Your task to perform on an android device: choose inbox layout in the gmail app Image 0: 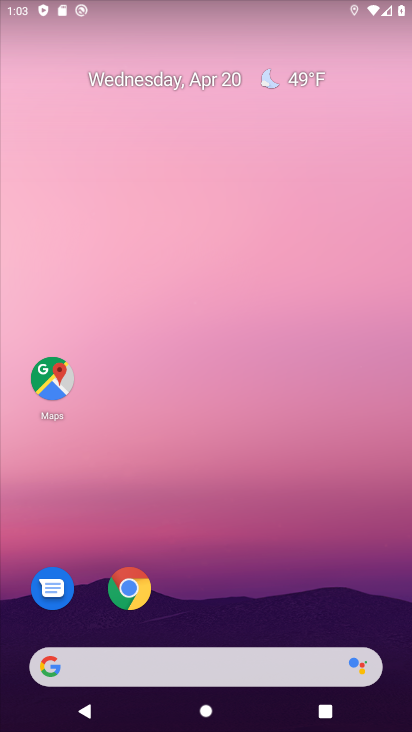
Step 0: drag from (207, 664) to (408, 8)
Your task to perform on an android device: choose inbox layout in the gmail app Image 1: 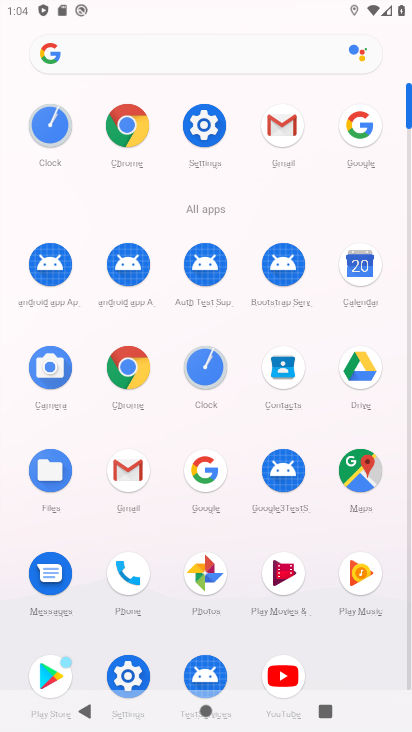
Step 1: click (277, 141)
Your task to perform on an android device: choose inbox layout in the gmail app Image 2: 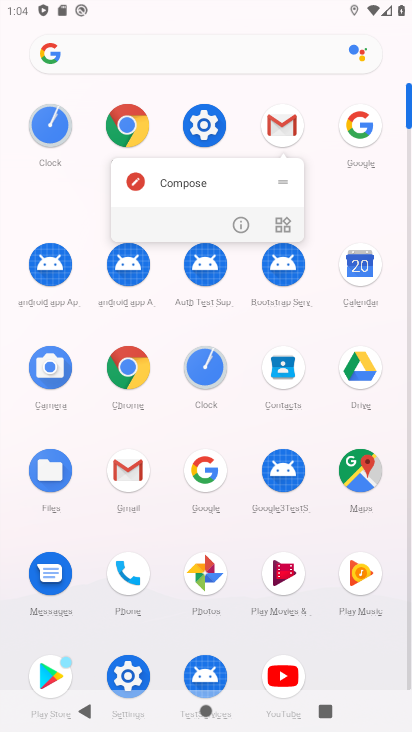
Step 2: click (282, 123)
Your task to perform on an android device: choose inbox layout in the gmail app Image 3: 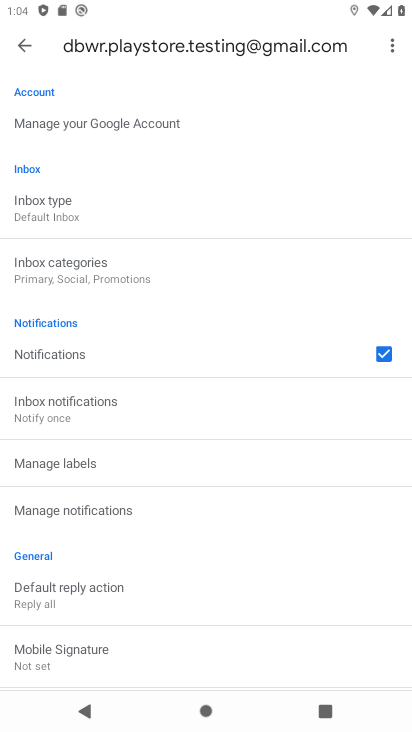
Step 3: click (69, 214)
Your task to perform on an android device: choose inbox layout in the gmail app Image 4: 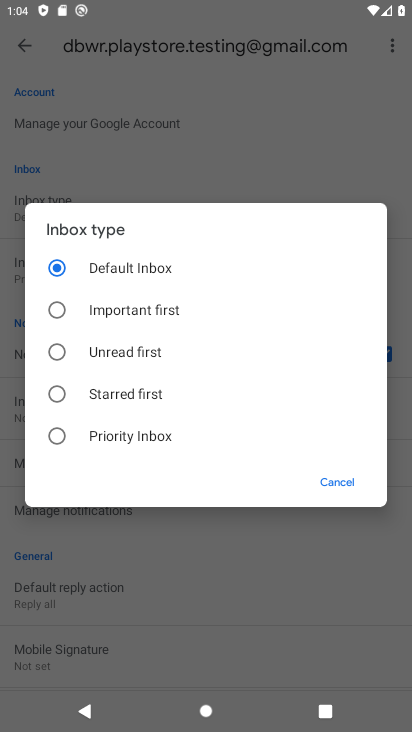
Step 4: click (58, 439)
Your task to perform on an android device: choose inbox layout in the gmail app Image 5: 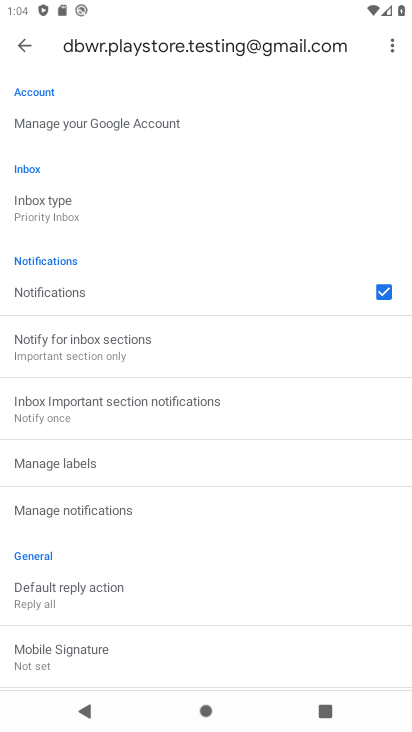
Step 5: task complete